Your task to perform on an android device: check battery use Image 0: 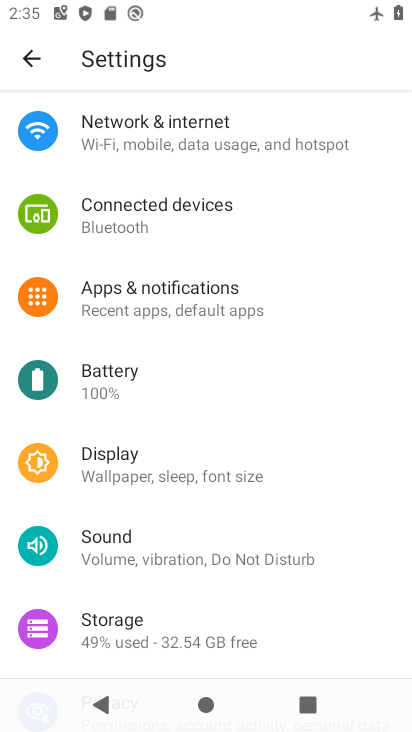
Step 0: drag from (150, 573) to (186, 297)
Your task to perform on an android device: check battery use Image 1: 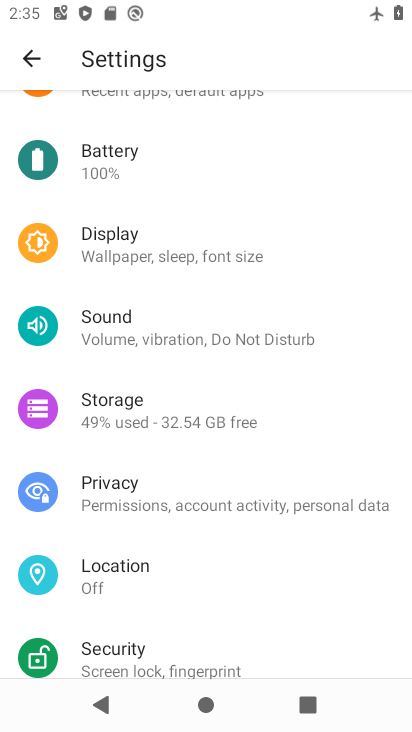
Step 1: drag from (169, 593) to (218, 228)
Your task to perform on an android device: check battery use Image 2: 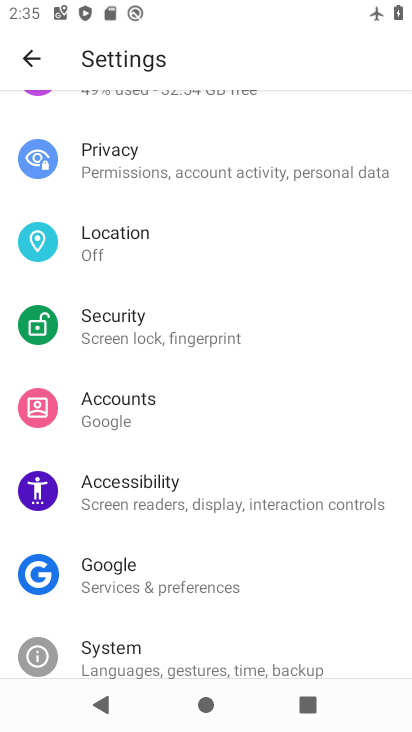
Step 2: drag from (187, 574) to (204, 228)
Your task to perform on an android device: check battery use Image 3: 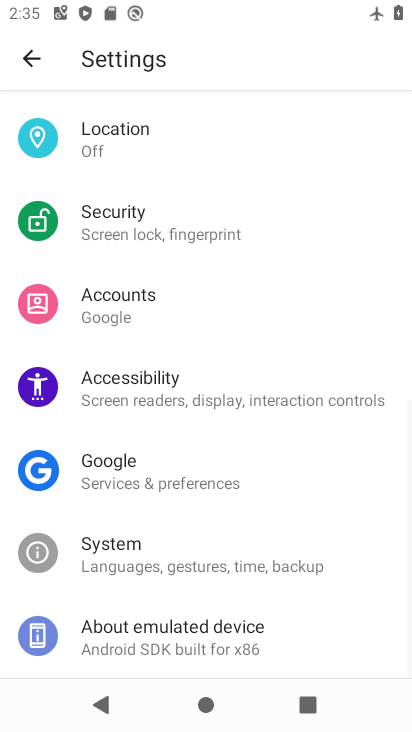
Step 3: drag from (204, 227) to (243, 578)
Your task to perform on an android device: check battery use Image 4: 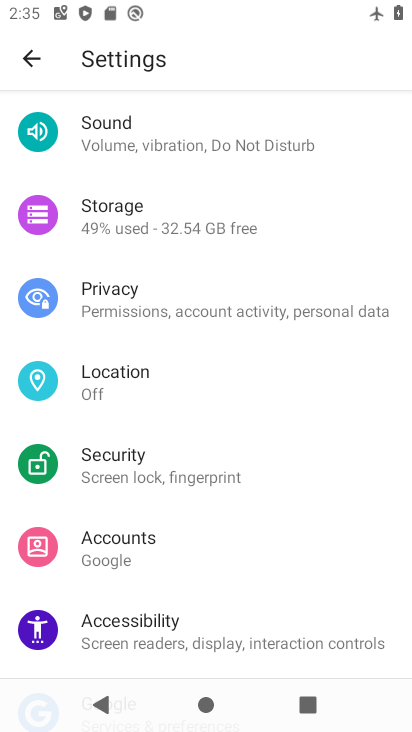
Step 4: drag from (179, 254) to (213, 622)
Your task to perform on an android device: check battery use Image 5: 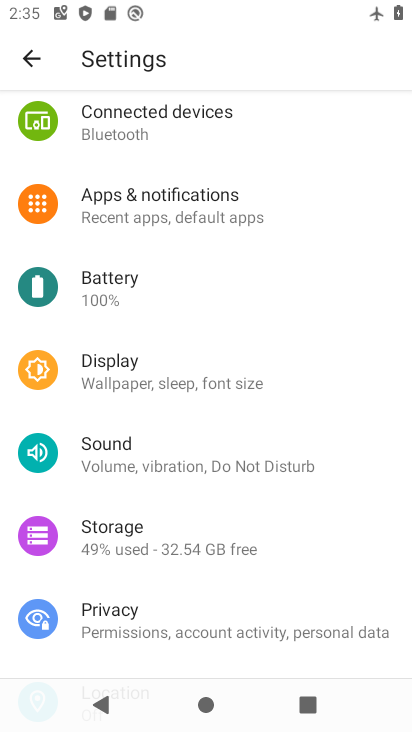
Step 5: click (116, 271)
Your task to perform on an android device: check battery use Image 6: 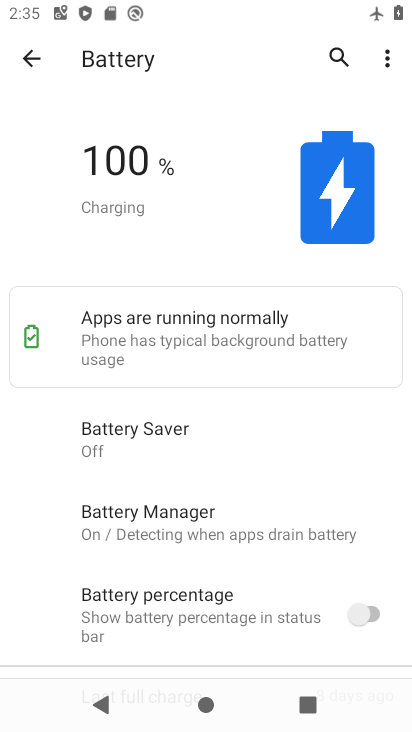
Step 6: task complete